Your task to perform on an android device: empty trash in the gmail app Image 0: 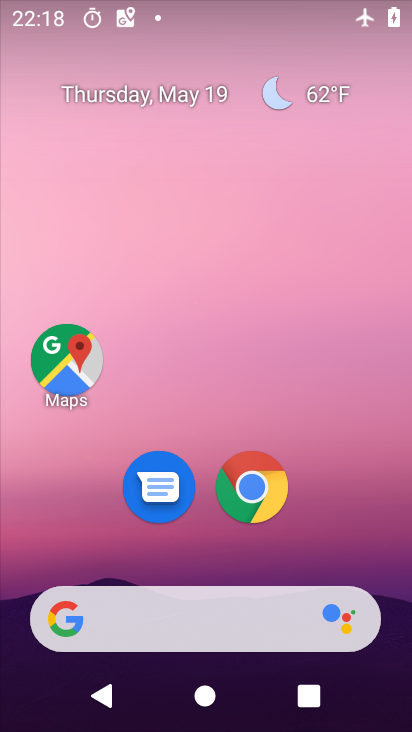
Step 0: drag from (345, 554) to (280, 154)
Your task to perform on an android device: empty trash in the gmail app Image 1: 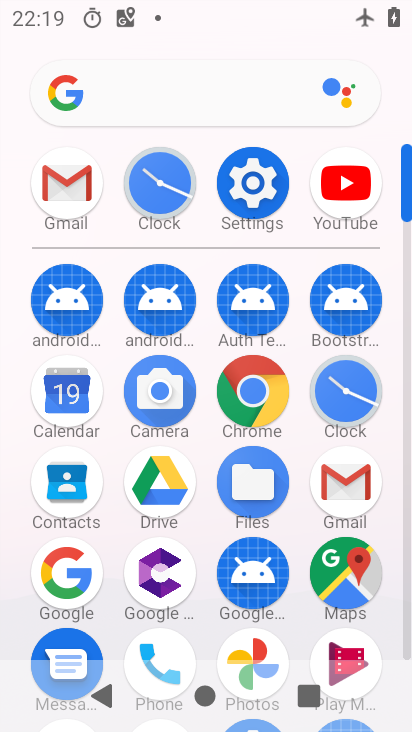
Step 1: click (74, 185)
Your task to perform on an android device: empty trash in the gmail app Image 2: 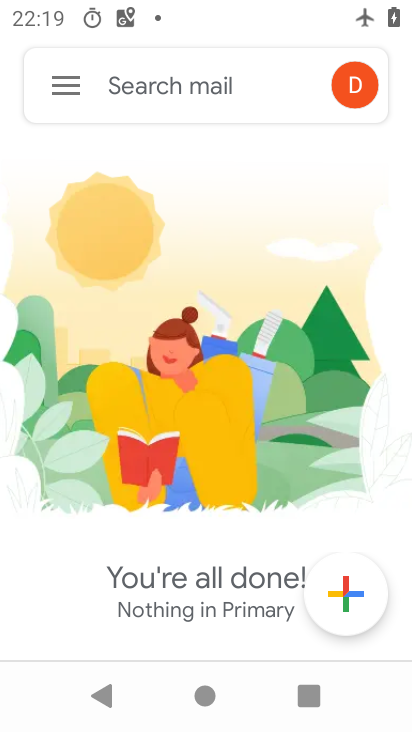
Step 2: click (74, 90)
Your task to perform on an android device: empty trash in the gmail app Image 3: 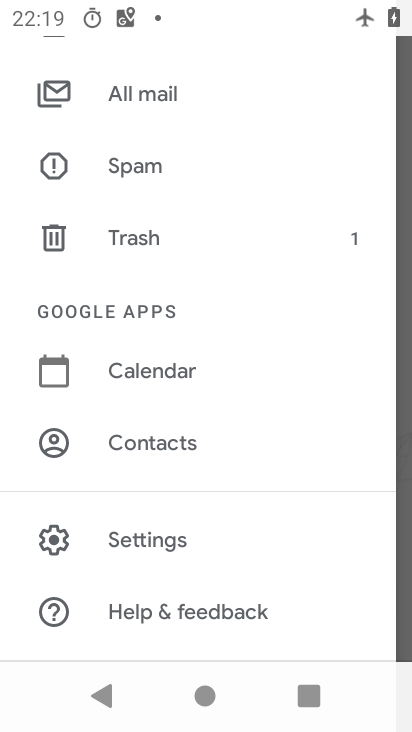
Step 3: click (147, 245)
Your task to perform on an android device: empty trash in the gmail app Image 4: 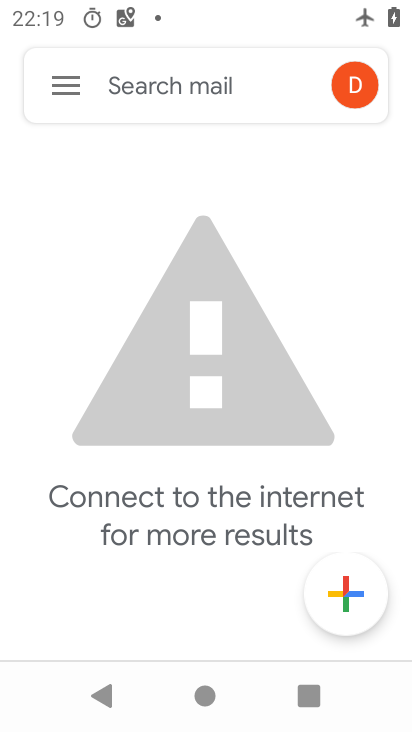
Step 4: task complete